Your task to perform on an android device: toggle location history Image 0: 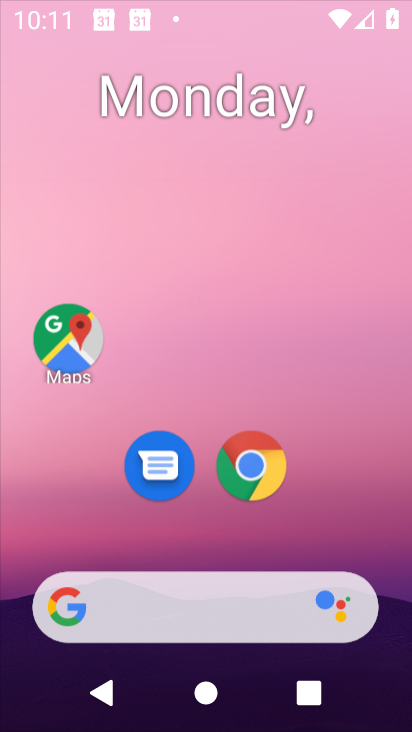
Step 0: click (194, 504)
Your task to perform on an android device: toggle location history Image 1: 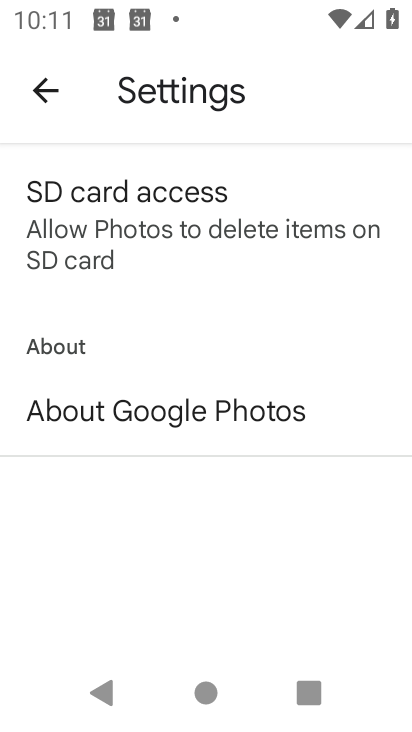
Step 1: click (51, 96)
Your task to perform on an android device: toggle location history Image 2: 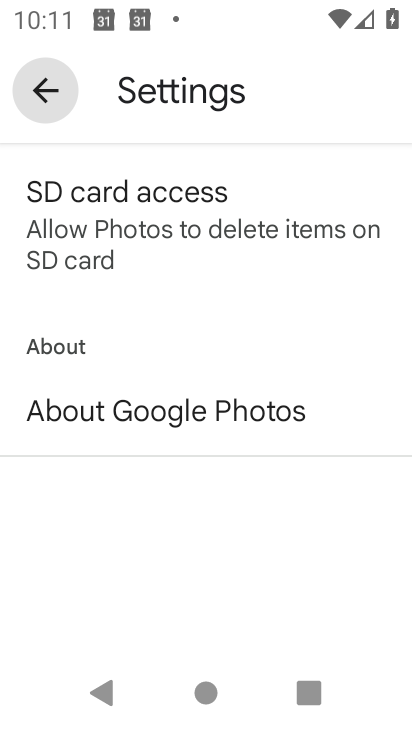
Step 2: press back button
Your task to perform on an android device: toggle location history Image 3: 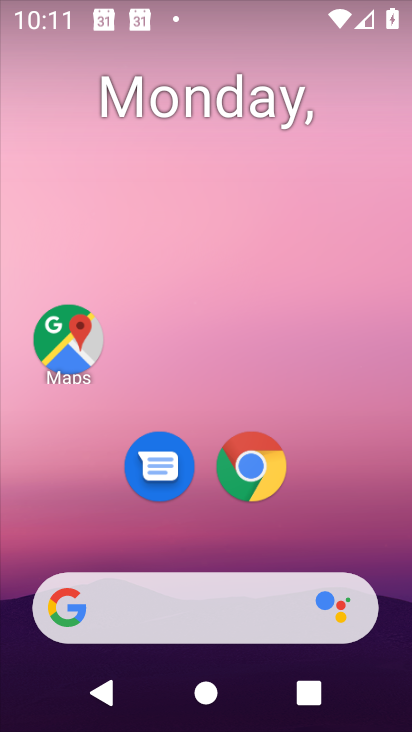
Step 3: drag from (366, 562) to (138, 124)
Your task to perform on an android device: toggle location history Image 4: 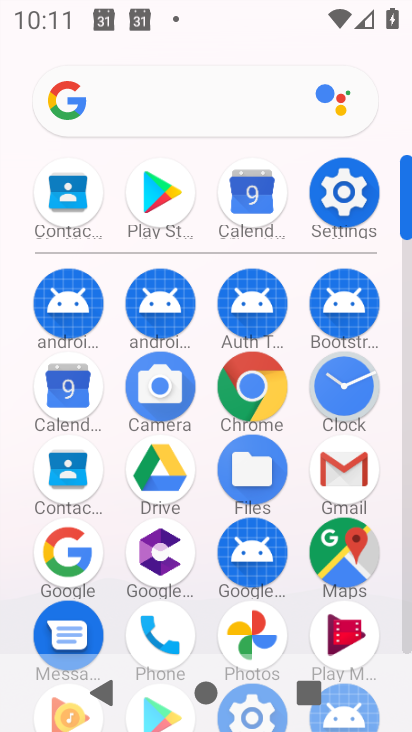
Step 4: click (347, 561)
Your task to perform on an android device: toggle location history Image 5: 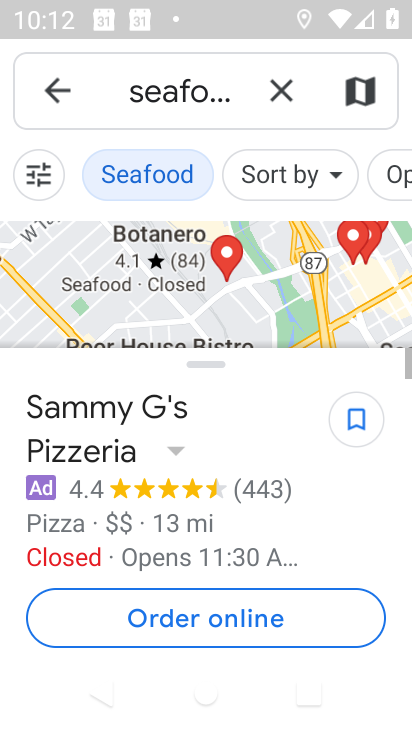
Step 5: click (58, 89)
Your task to perform on an android device: toggle location history Image 6: 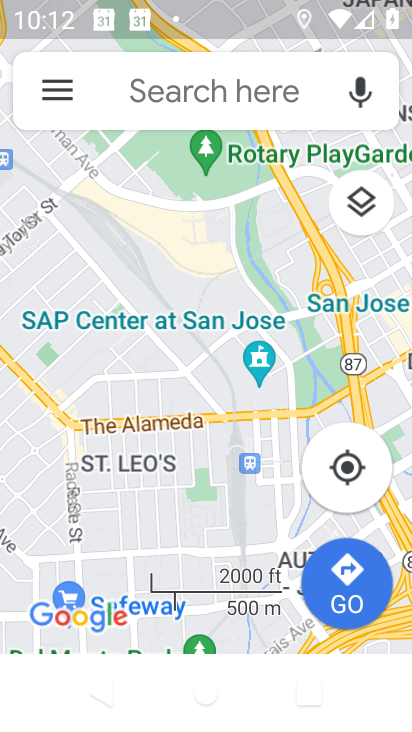
Step 6: click (58, 89)
Your task to perform on an android device: toggle location history Image 7: 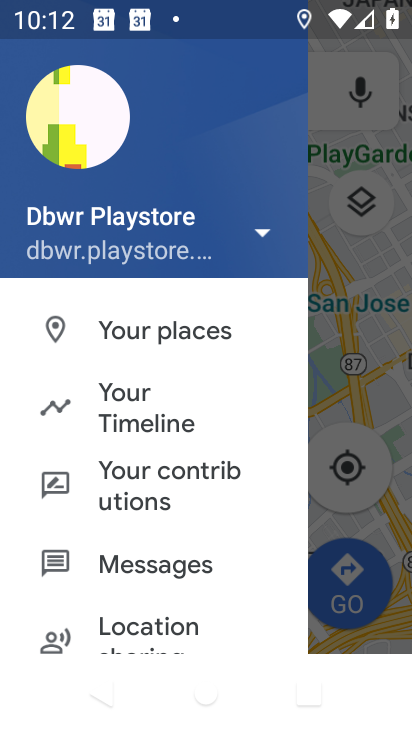
Step 7: click (137, 410)
Your task to perform on an android device: toggle location history Image 8: 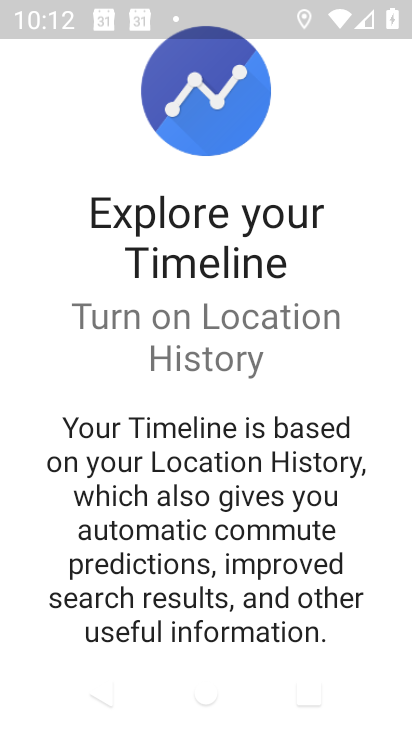
Step 8: drag from (257, 525) to (195, 215)
Your task to perform on an android device: toggle location history Image 9: 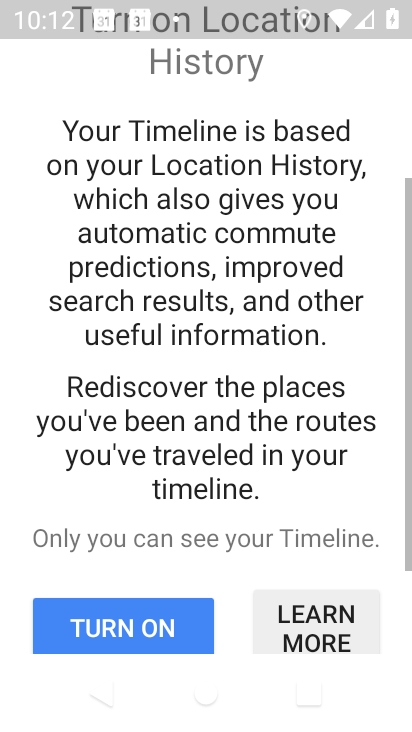
Step 9: drag from (230, 462) to (199, 216)
Your task to perform on an android device: toggle location history Image 10: 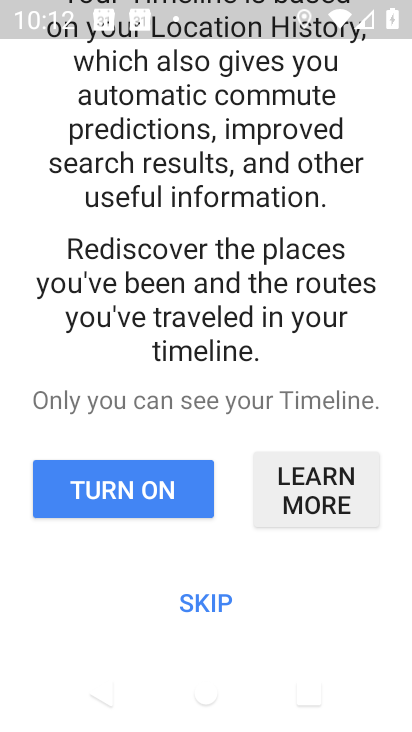
Step 10: click (107, 502)
Your task to perform on an android device: toggle location history Image 11: 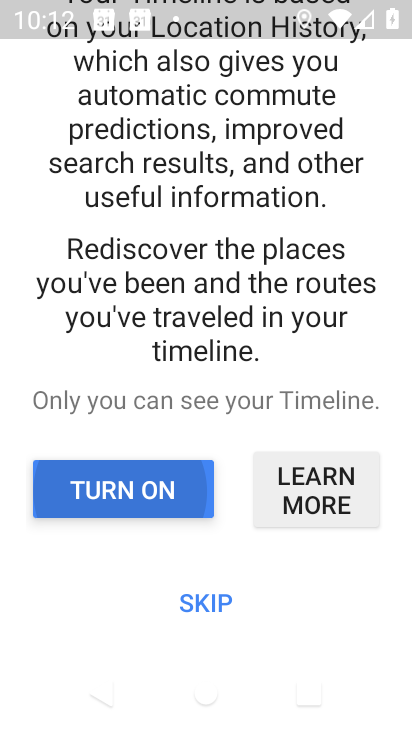
Step 11: click (107, 501)
Your task to perform on an android device: toggle location history Image 12: 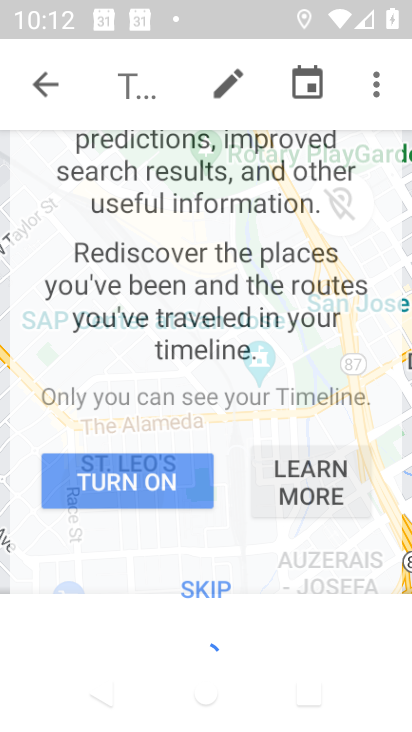
Step 12: click (107, 499)
Your task to perform on an android device: toggle location history Image 13: 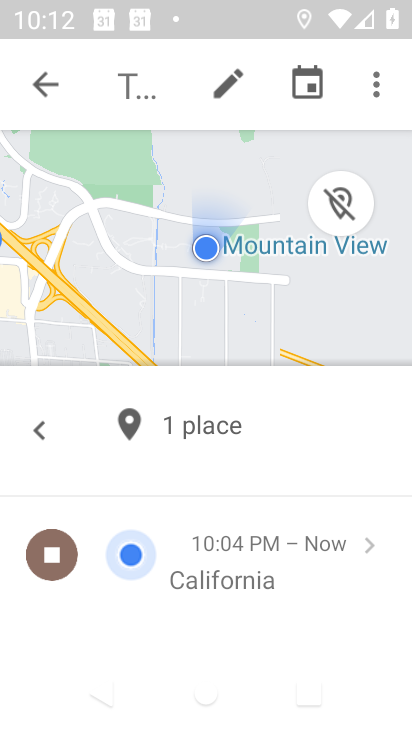
Step 13: click (360, 86)
Your task to perform on an android device: toggle location history Image 14: 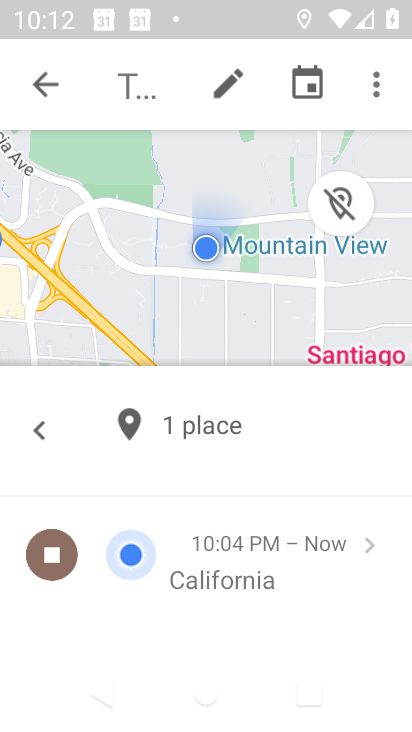
Step 14: drag from (375, 86) to (311, 609)
Your task to perform on an android device: toggle location history Image 15: 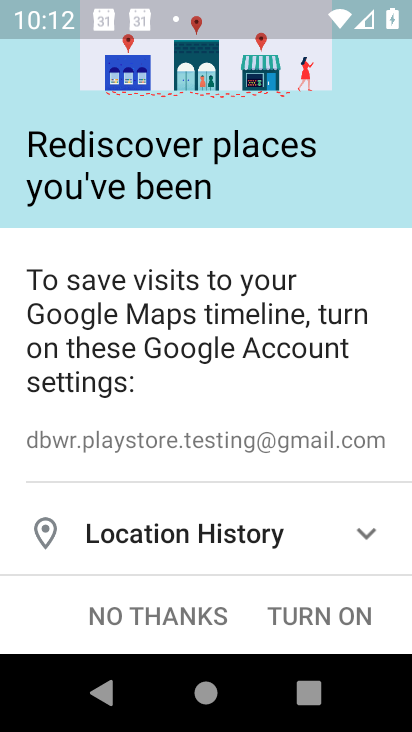
Step 15: click (311, 609)
Your task to perform on an android device: toggle location history Image 16: 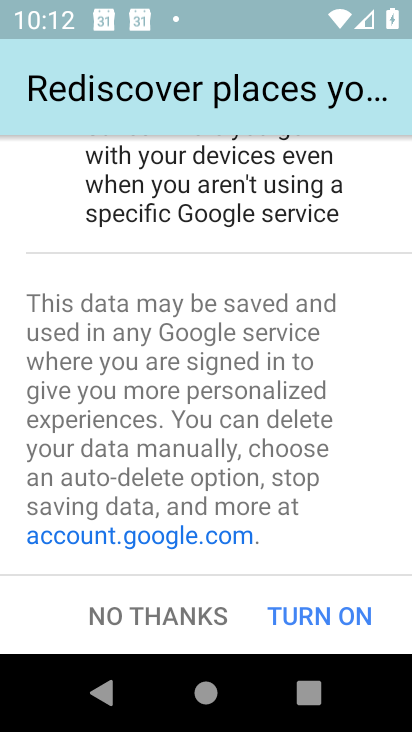
Step 16: click (318, 606)
Your task to perform on an android device: toggle location history Image 17: 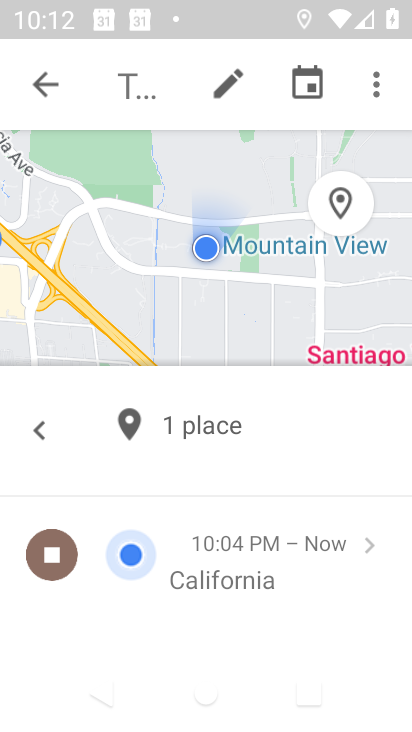
Step 17: task complete